Your task to perform on an android device: change alarm snooze length Image 0: 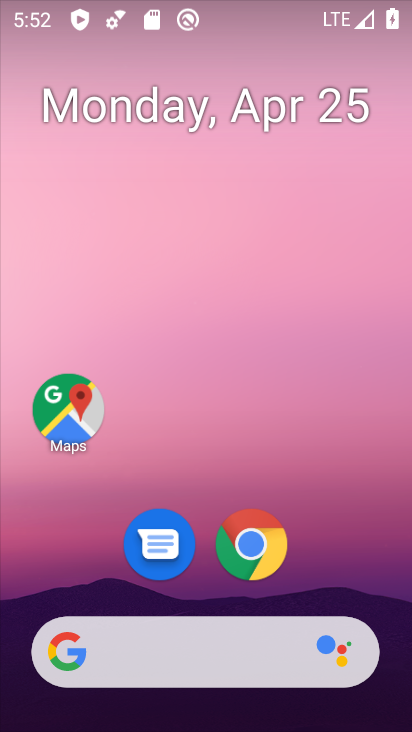
Step 0: drag from (381, 564) to (248, 56)
Your task to perform on an android device: change alarm snooze length Image 1: 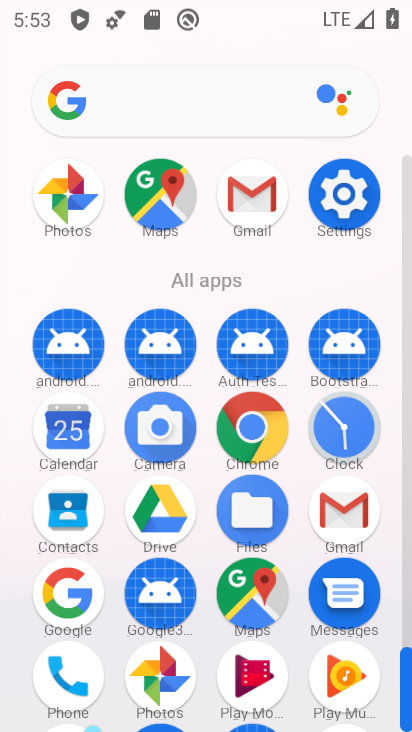
Step 1: click (330, 415)
Your task to perform on an android device: change alarm snooze length Image 2: 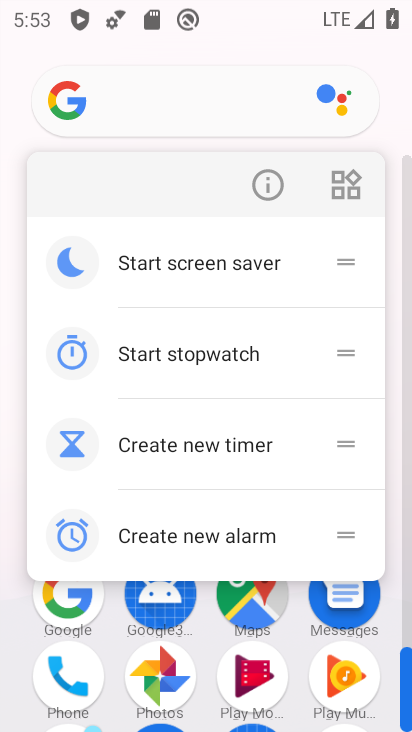
Step 2: click (407, 423)
Your task to perform on an android device: change alarm snooze length Image 3: 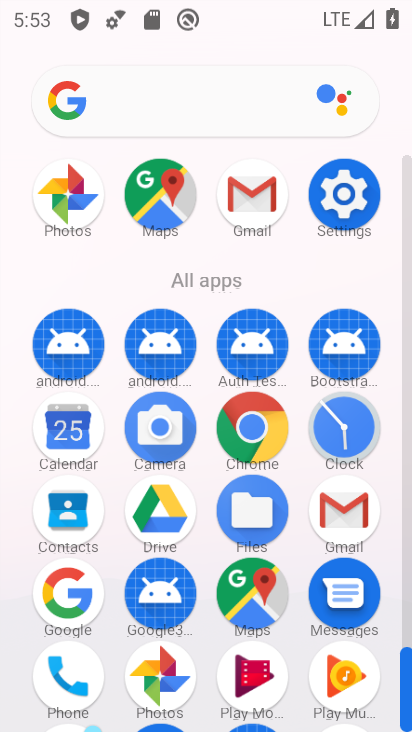
Step 3: click (349, 427)
Your task to perform on an android device: change alarm snooze length Image 4: 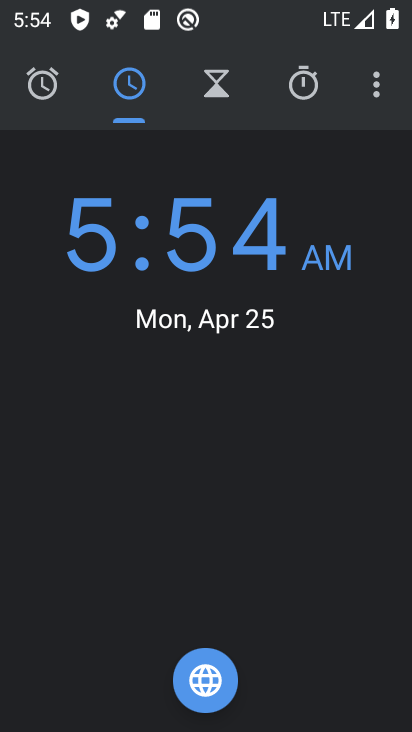
Step 4: click (378, 100)
Your task to perform on an android device: change alarm snooze length Image 5: 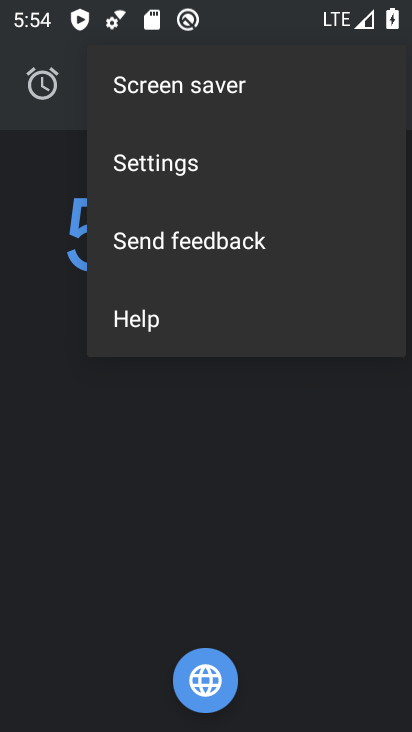
Step 5: click (155, 150)
Your task to perform on an android device: change alarm snooze length Image 6: 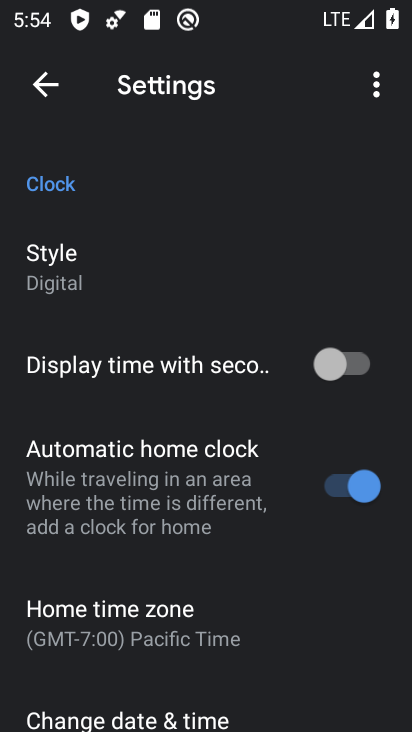
Step 6: drag from (300, 599) to (116, 242)
Your task to perform on an android device: change alarm snooze length Image 7: 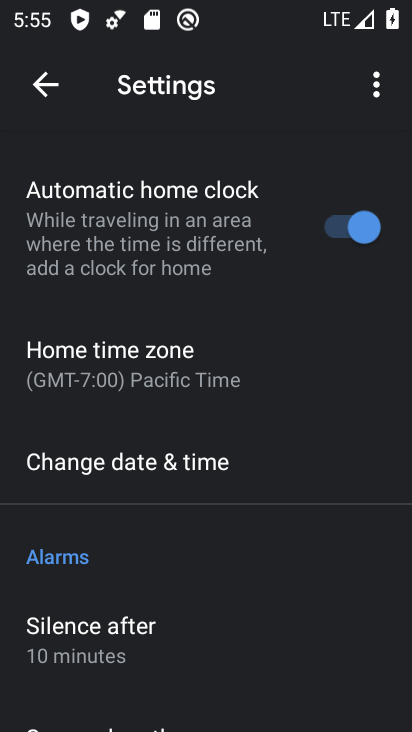
Step 7: drag from (214, 619) to (103, 471)
Your task to perform on an android device: change alarm snooze length Image 8: 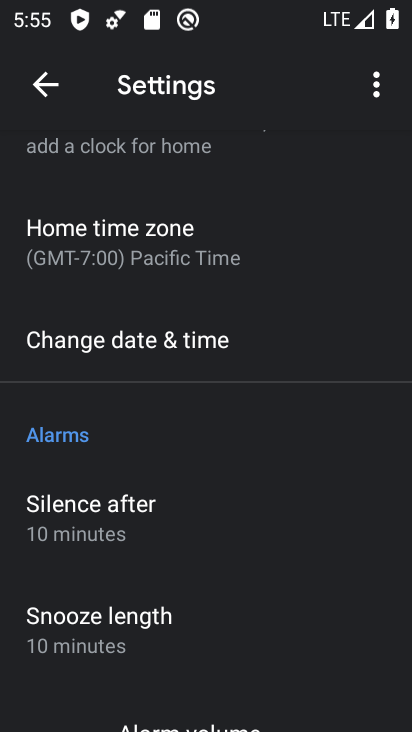
Step 8: click (173, 625)
Your task to perform on an android device: change alarm snooze length Image 9: 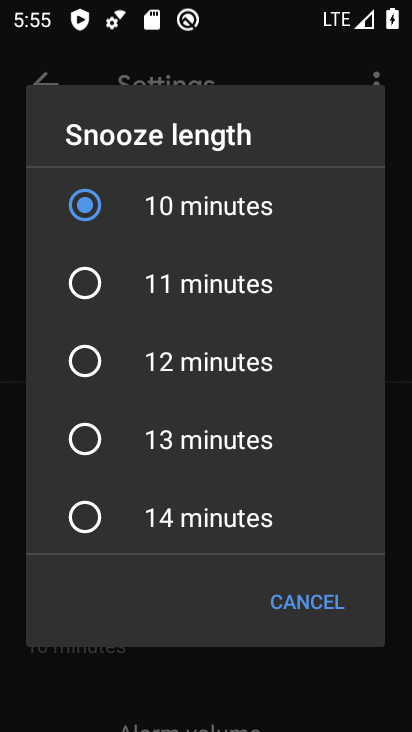
Step 9: click (103, 435)
Your task to perform on an android device: change alarm snooze length Image 10: 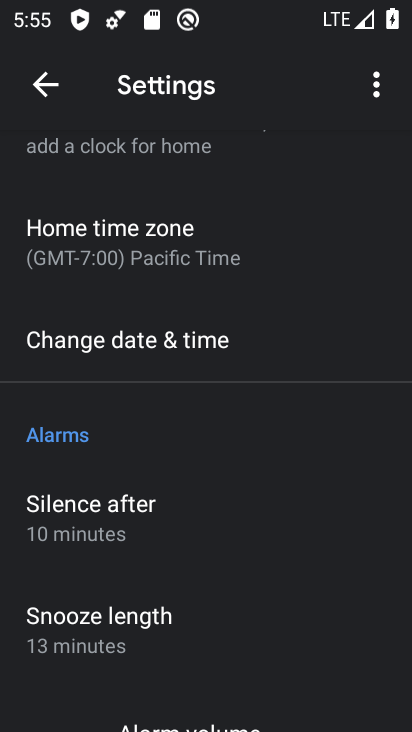
Step 10: task complete